Your task to perform on an android device: snooze an email in the gmail app Image 0: 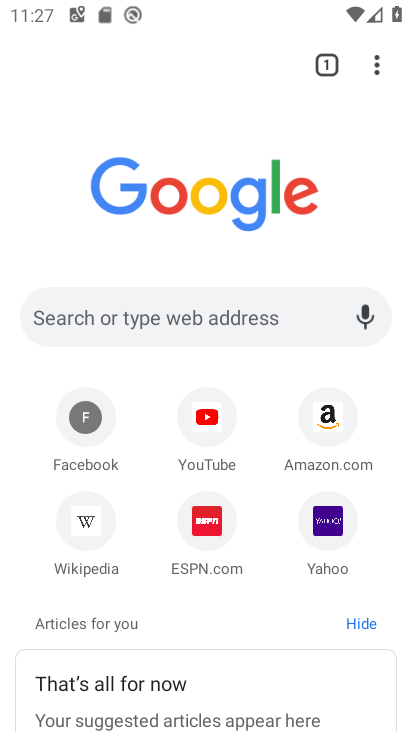
Step 0: press home button
Your task to perform on an android device: snooze an email in the gmail app Image 1: 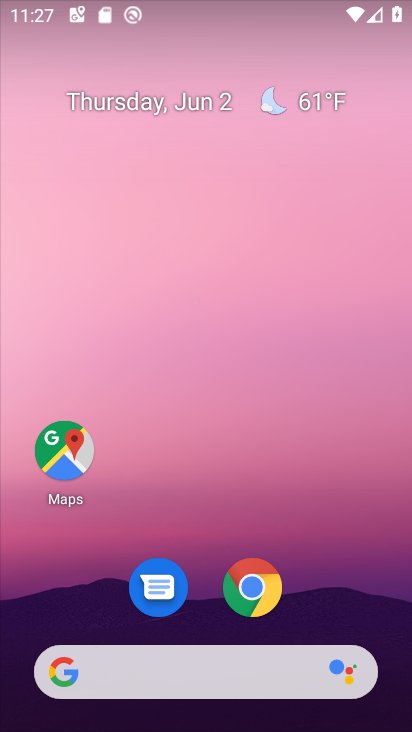
Step 1: drag from (164, 386) to (126, 0)
Your task to perform on an android device: snooze an email in the gmail app Image 2: 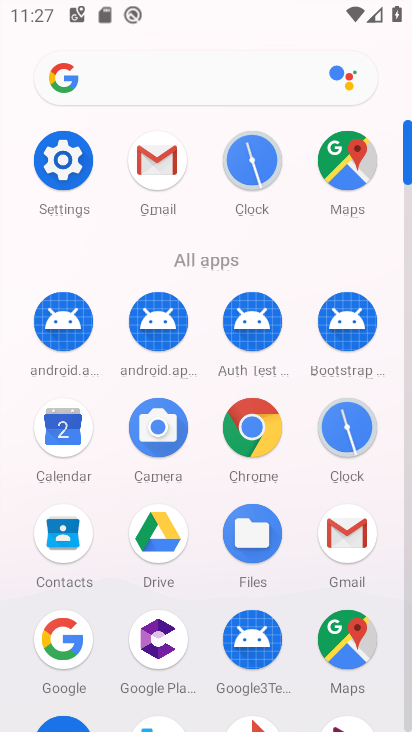
Step 2: click (159, 162)
Your task to perform on an android device: snooze an email in the gmail app Image 3: 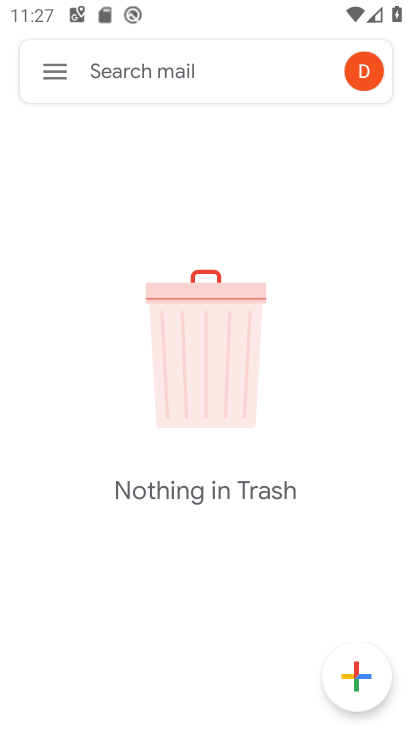
Step 3: click (57, 69)
Your task to perform on an android device: snooze an email in the gmail app Image 4: 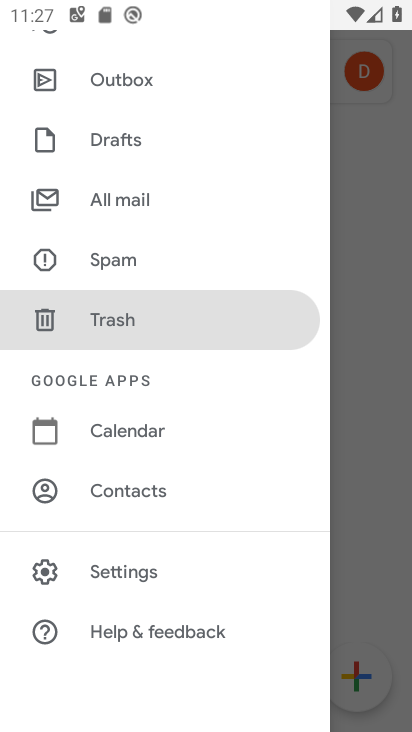
Step 4: click (132, 197)
Your task to perform on an android device: snooze an email in the gmail app Image 5: 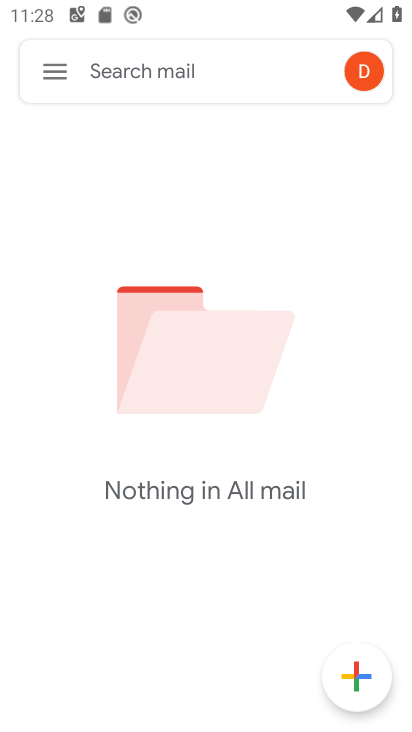
Step 5: task complete